Your task to perform on an android device: Search for pizza restaurants on Maps Image 0: 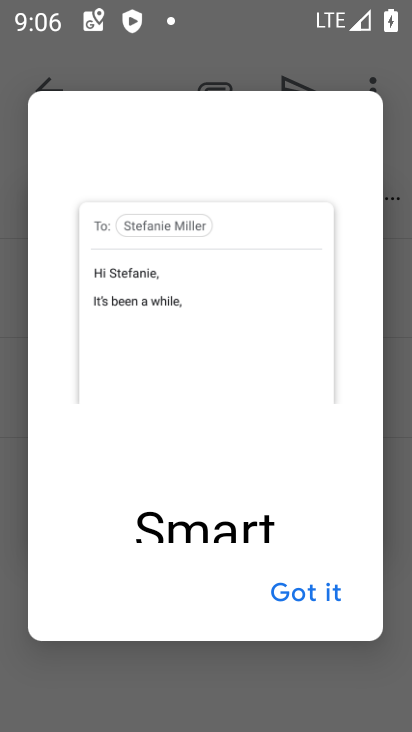
Step 0: press home button
Your task to perform on an android device: Search for pizza restaurants on Maps Image 1: 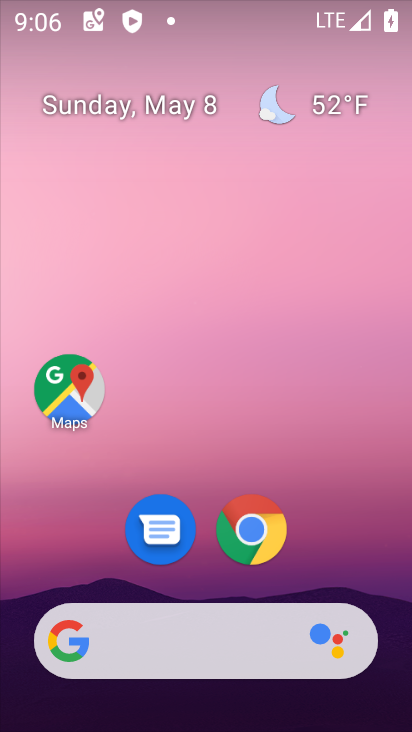
Step 1: drag from (352, 578) to (349, 108)
Your task to perform on an android device: Search for pizza restaurants on Maps Image 2: 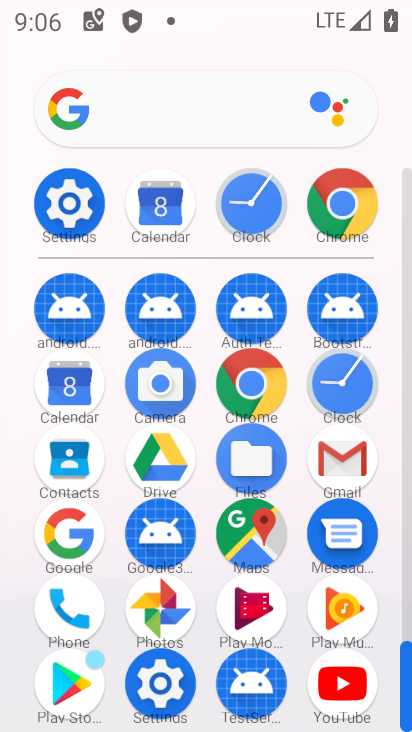
Step 2: click (242, 546)
Your task to perform on an android device: Search for pizza restaurants on Maps Image 3: 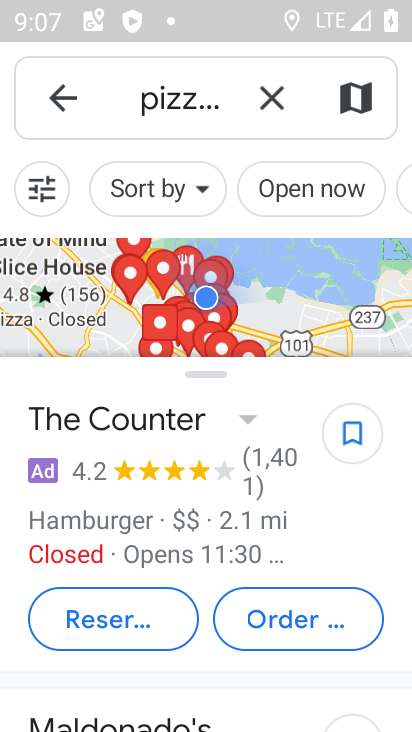
Step 3: task complete